Your task to perform on an android device: Do I have any events this weekend? Image 0: 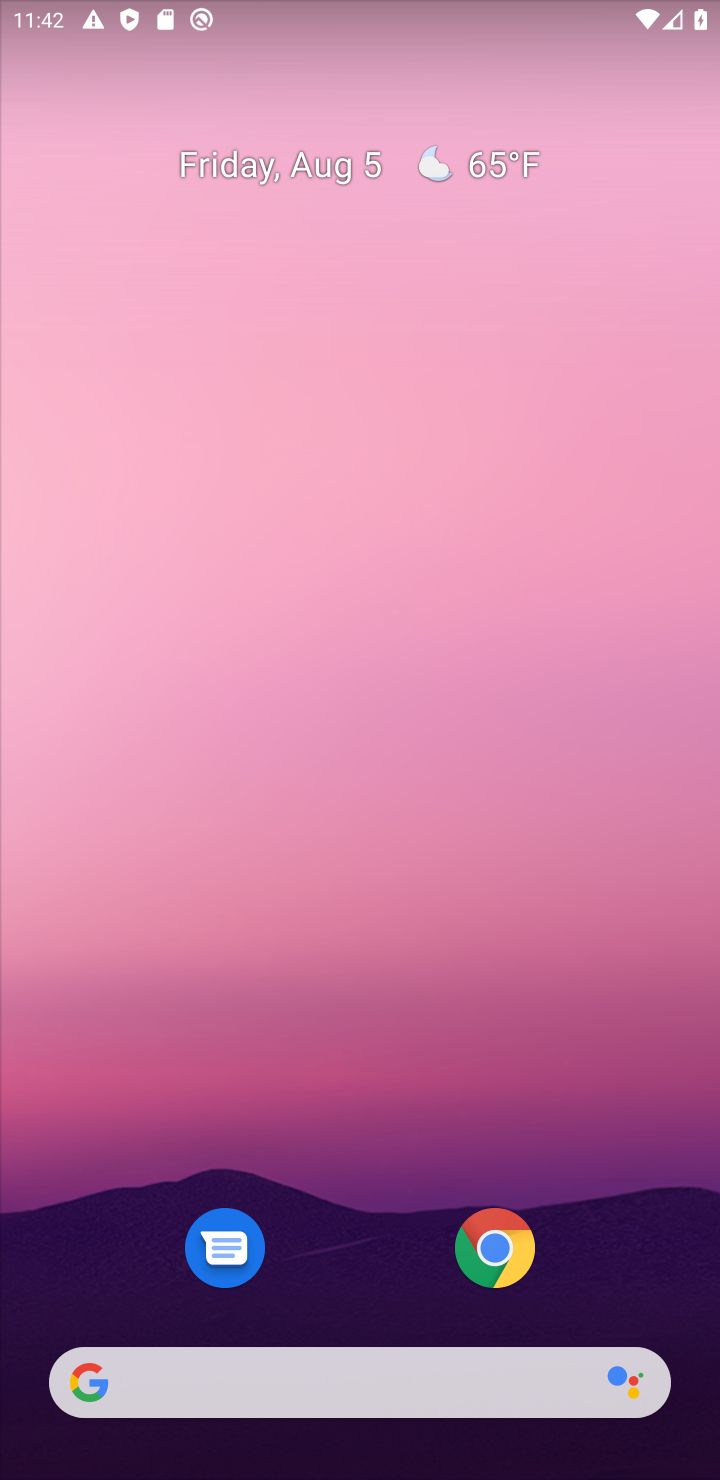
Step 0: press home button
Your task to perform on an android device: Do I have any events this weekend? Image 1: 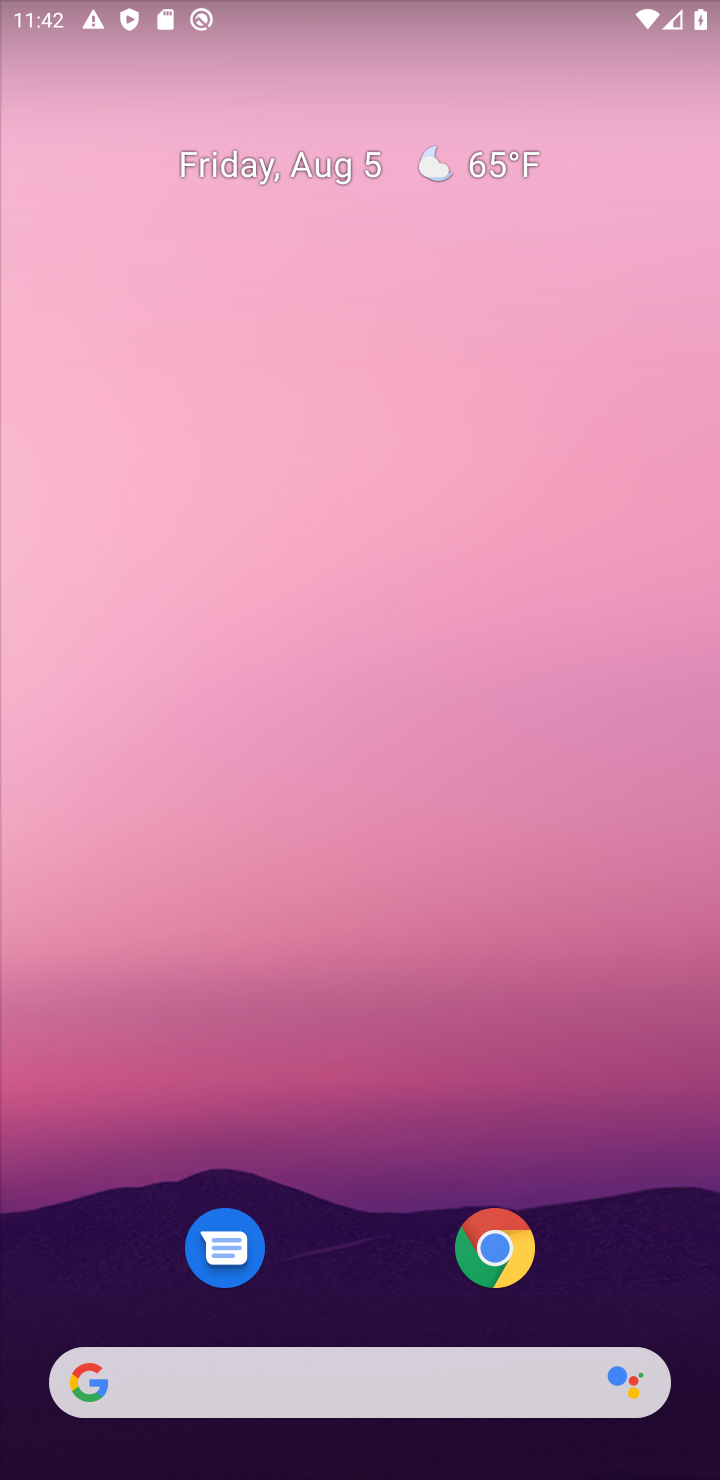
Step 1: drag from (382, 1260) to (410, 361)
Your task to perform on an android device: Do I have any events this weekend? Image 2: 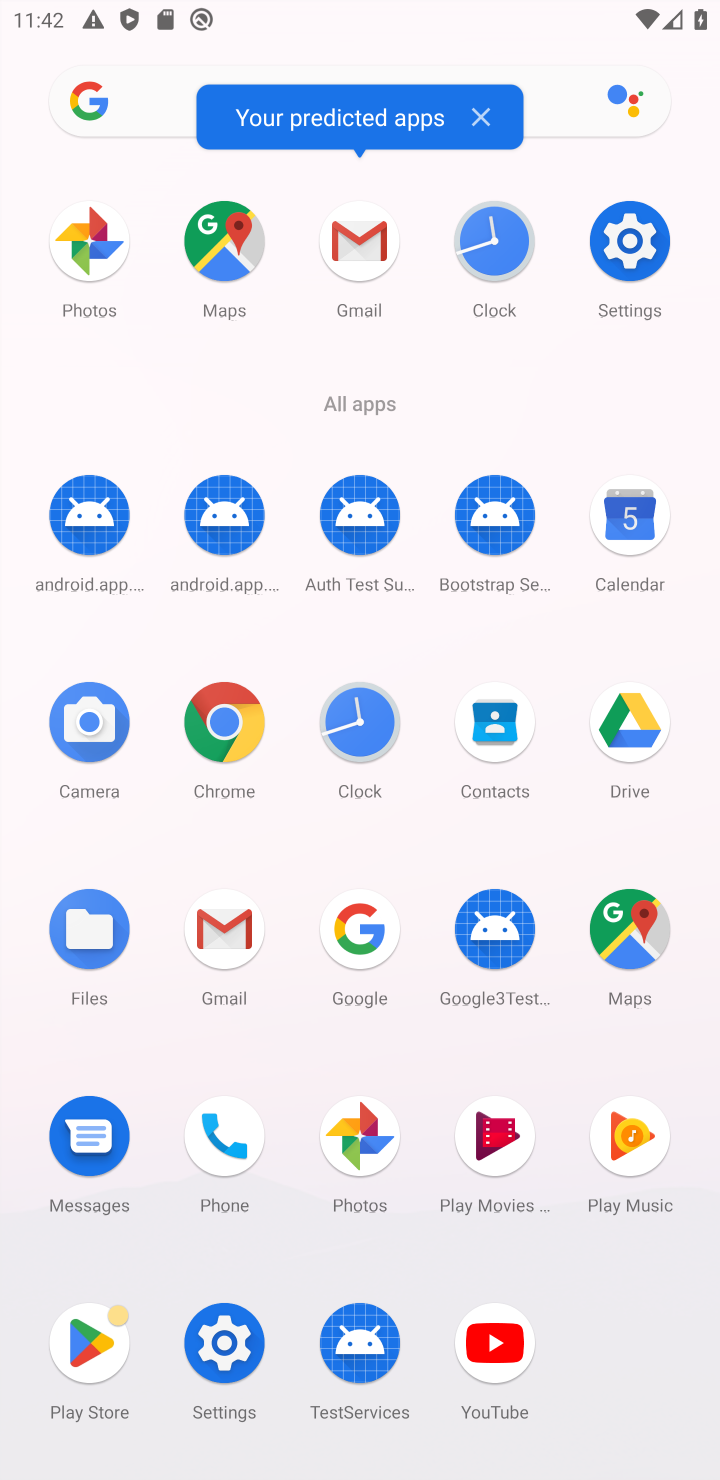
Step 2: click (618, 508)
Your task to perform on an android device: Do I have any events this weekend? Image 3: 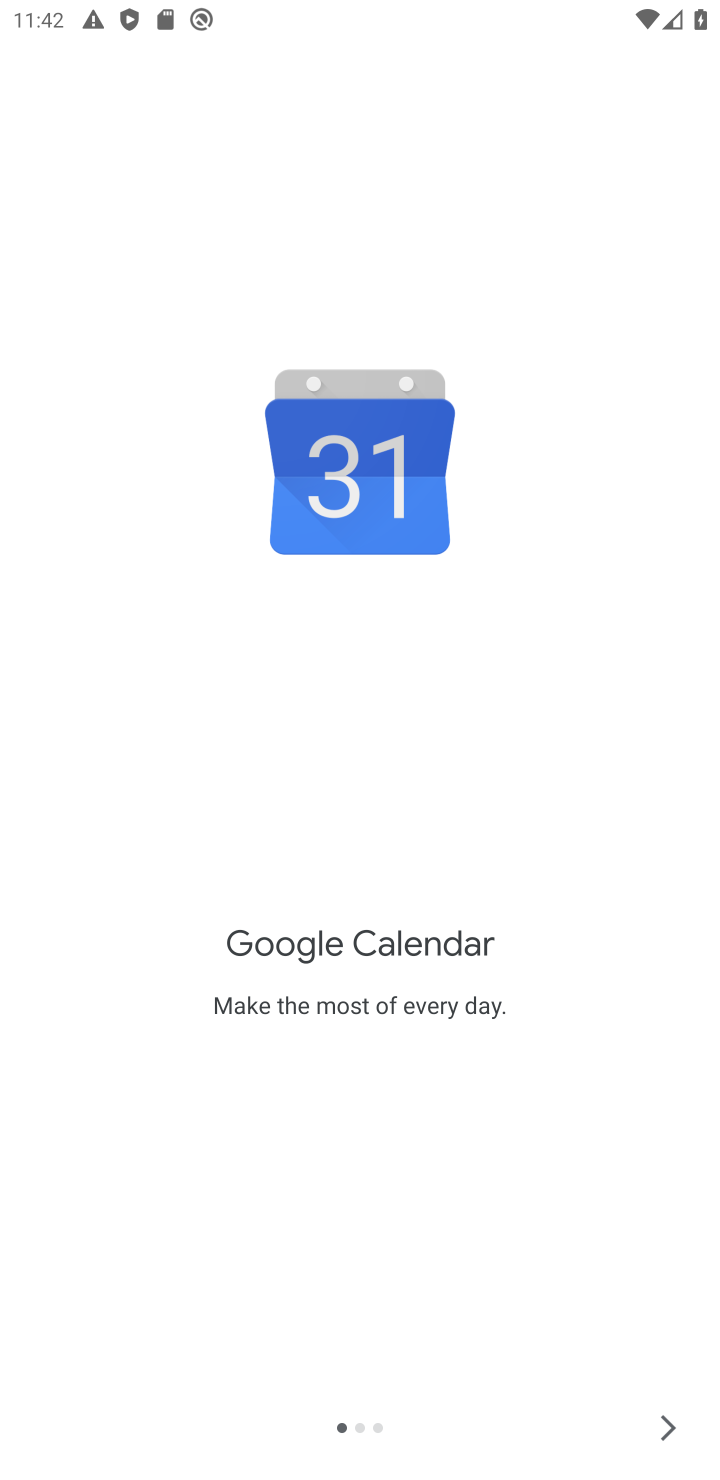
Step 3: click (680, 1424)
Your task to perform on an android device: Do I have any events this weekend? Image 4: 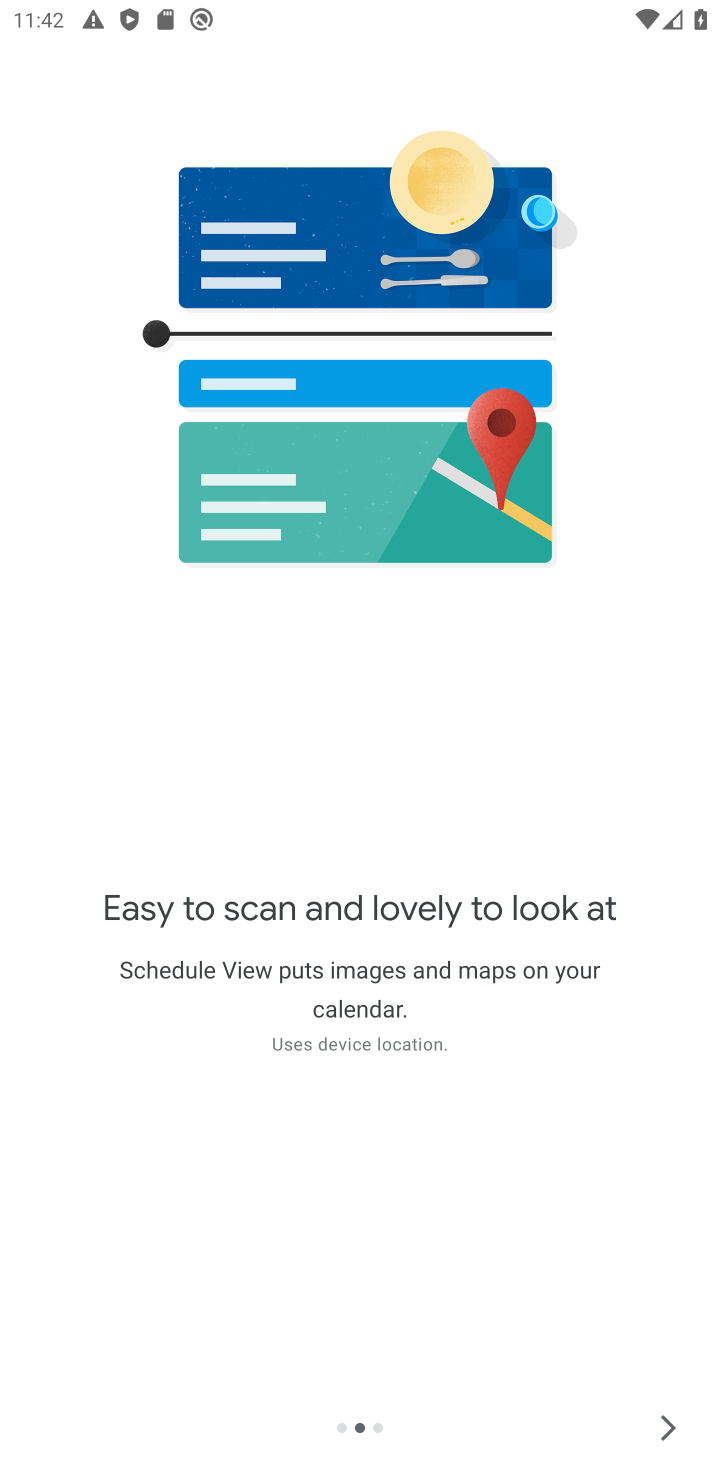
Step 4: click (680, 1424)
Your task to perform on an android device: Do I have any events this weekend? Image 5: 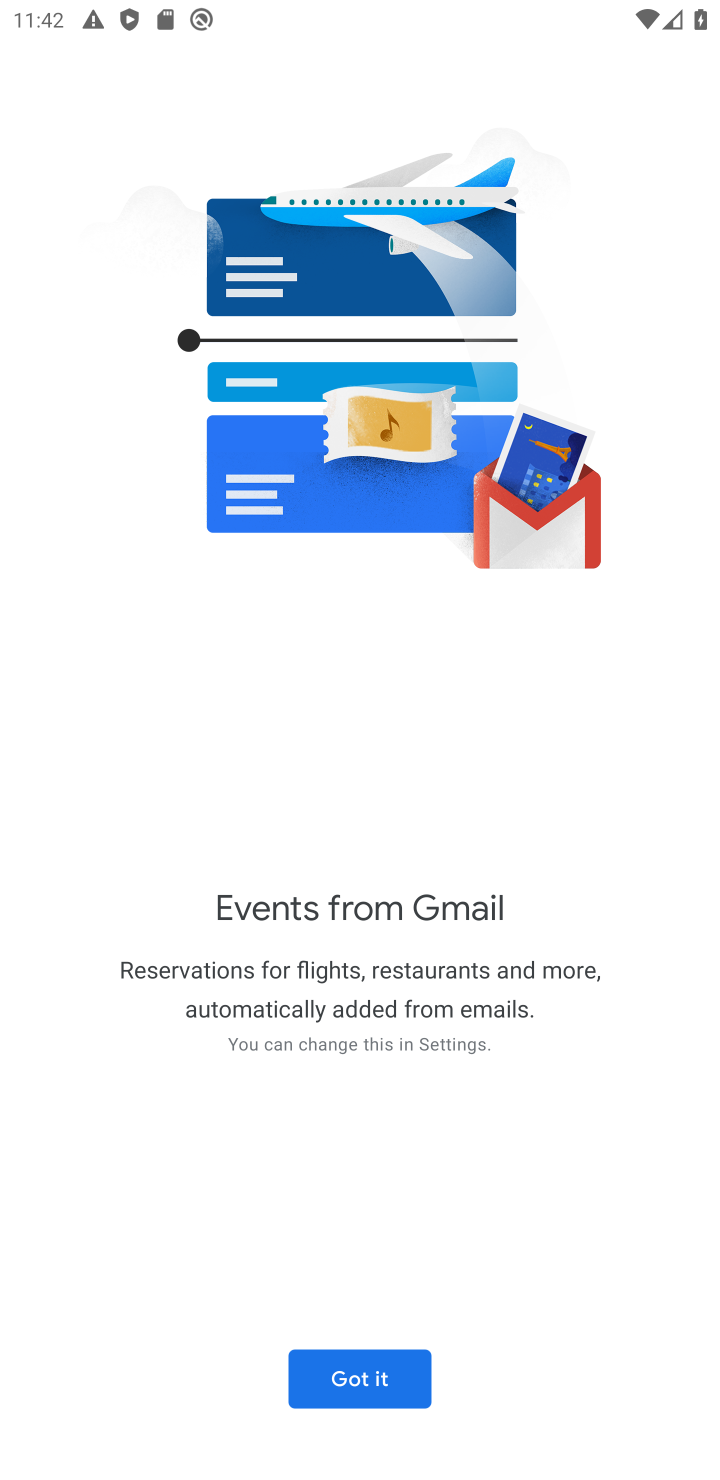
Step 5: click (380, 1361)
Your task to perform on an android device: Do I have any events this weekend? Image 6: 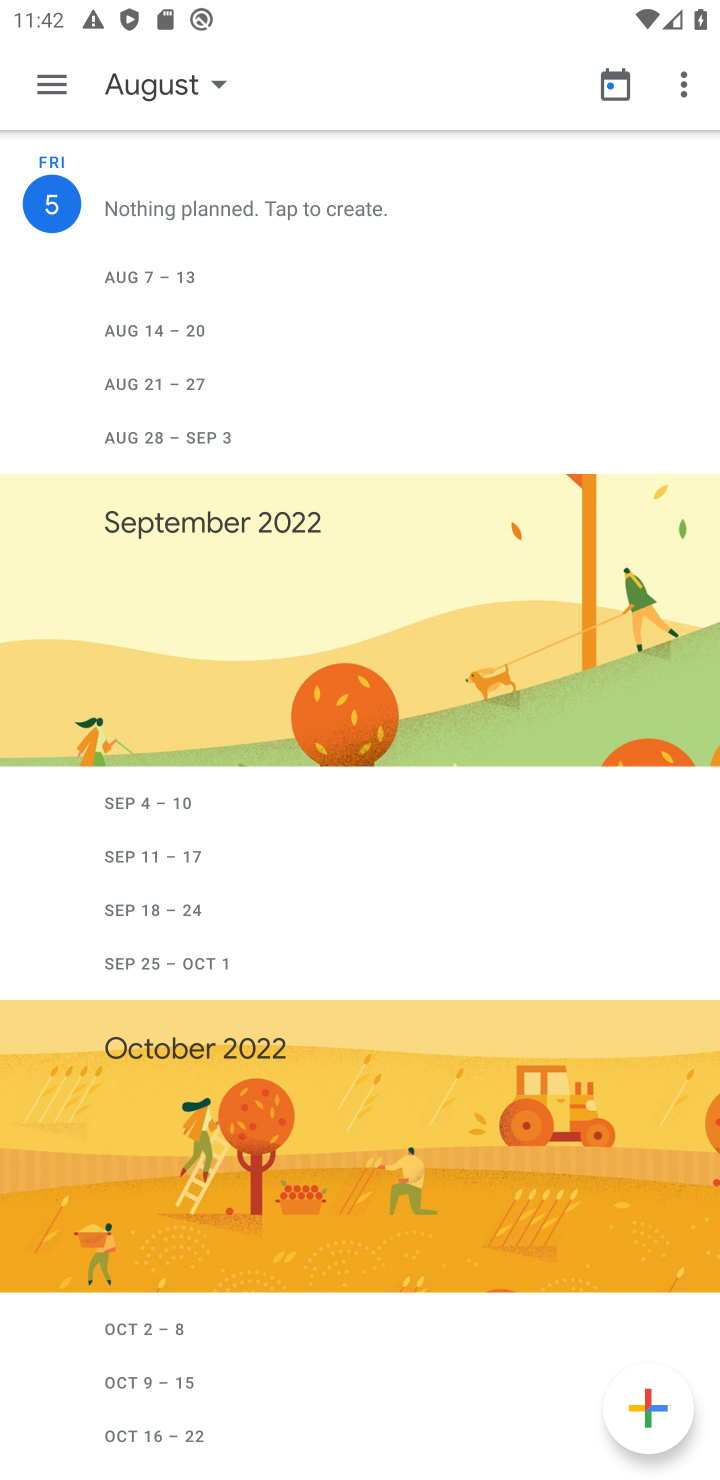
Step 6: click (49, 78)
Your task to perform on an android device: Do I have any events this weekend? Image 7: 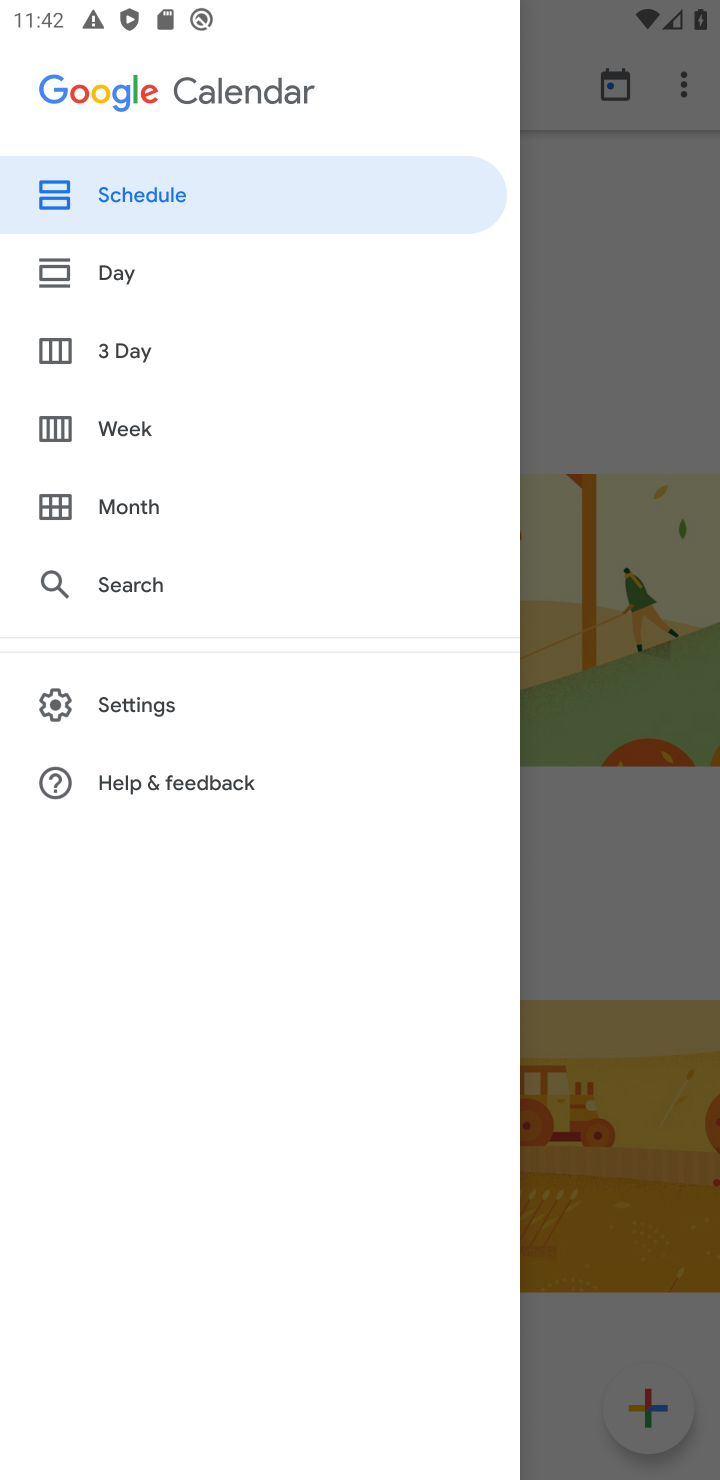
Step 7: click (87, 421)
Your task to perform on an android device: Do I have any events this weekend? Image 8: 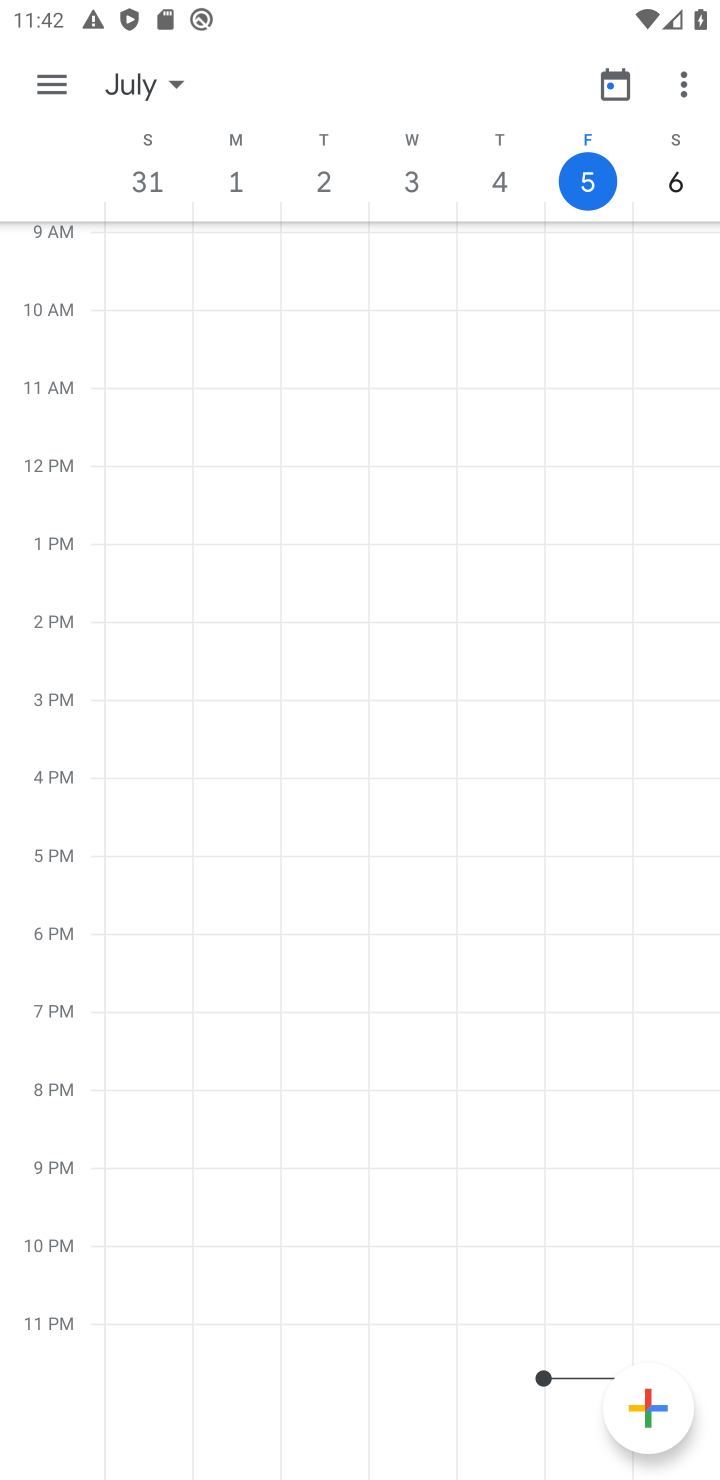
Step 8: click (51, 90)
Your task to perform on an android device: Do I have any events this weekend? Image 9: 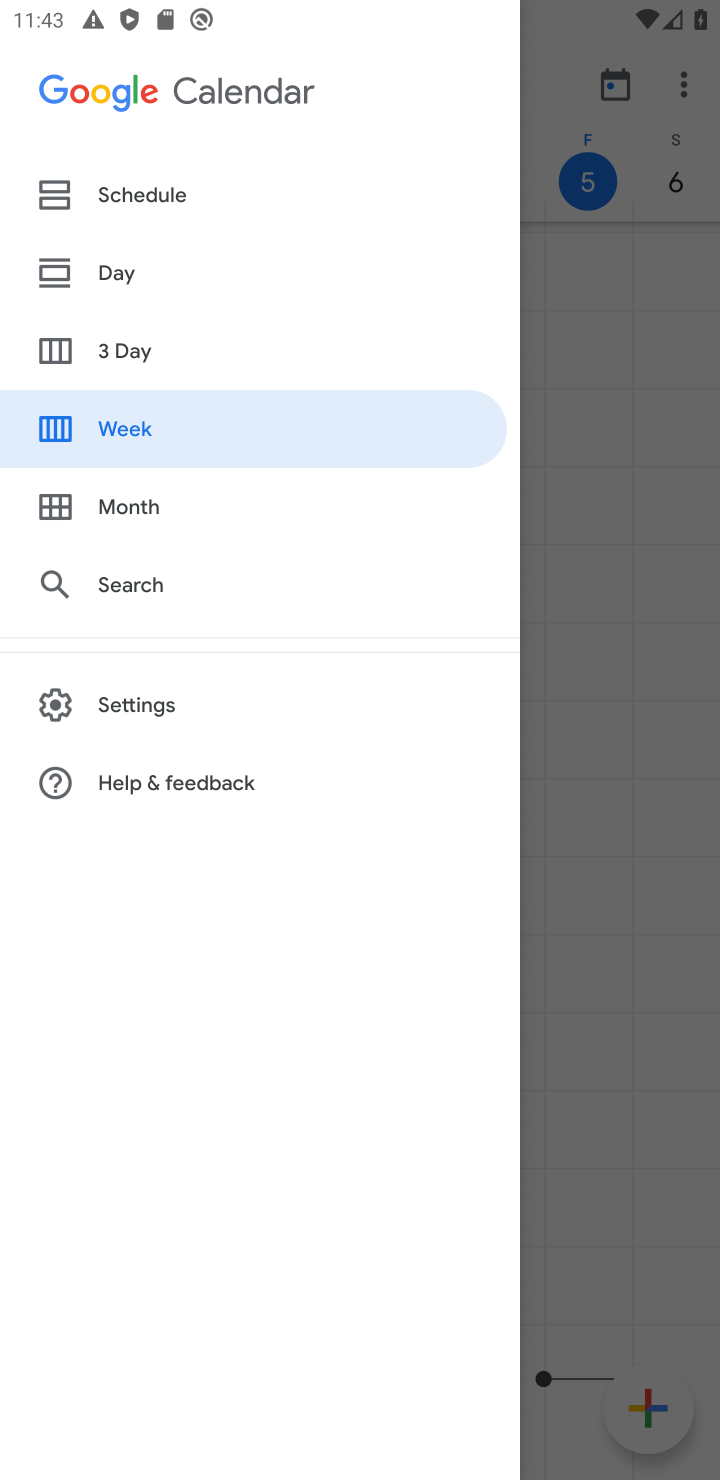
Step 9: click (580, 191)
Your task to perform on an android device: Do I have any events this weekend? Image 10: 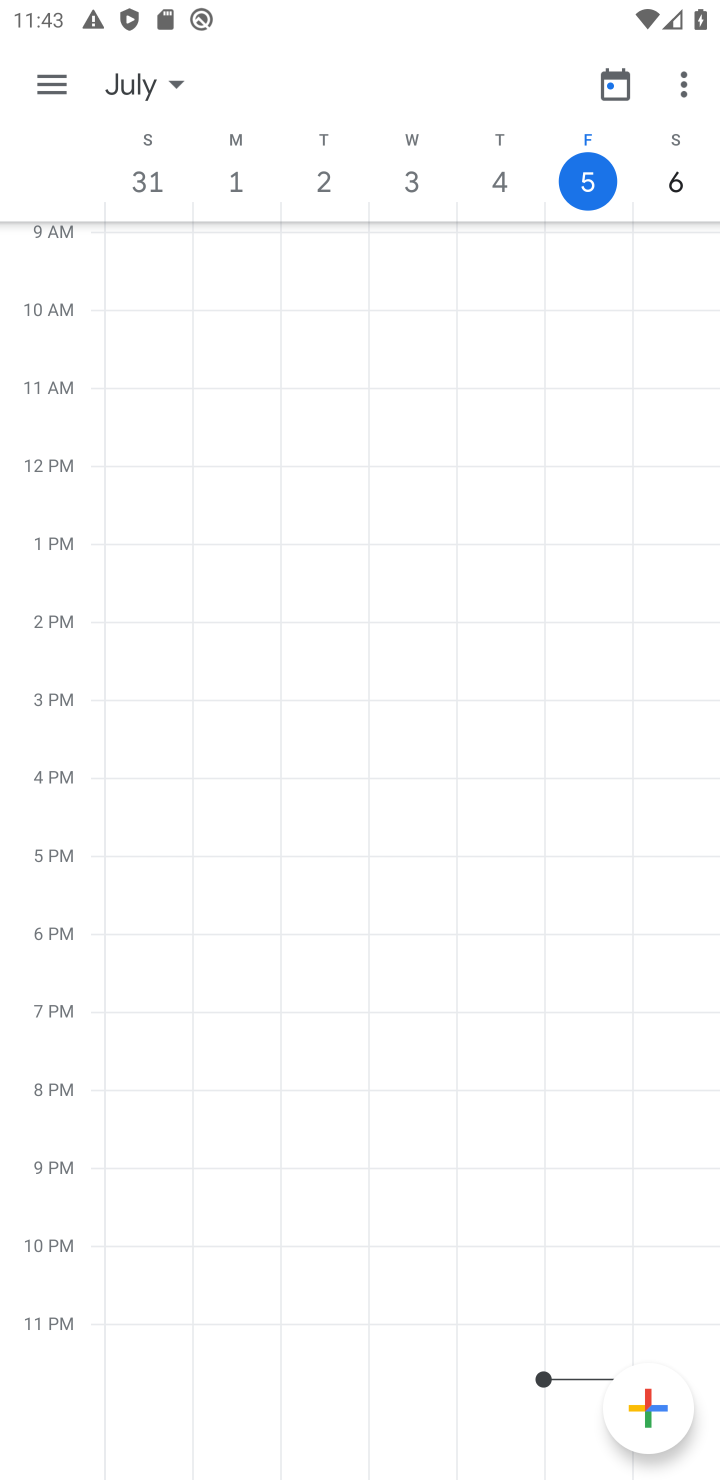
Step 10: task complete